Your task to perform on an android device: delete browsing data in the chrome app Image 0: 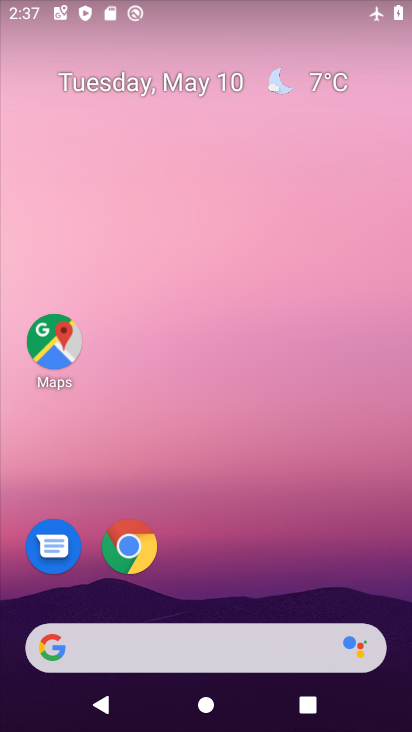
Step 0: drag from (330, 567) to (331, 101)
Your task to perform on an android device: delete browsing data in the chrome app Image 1: 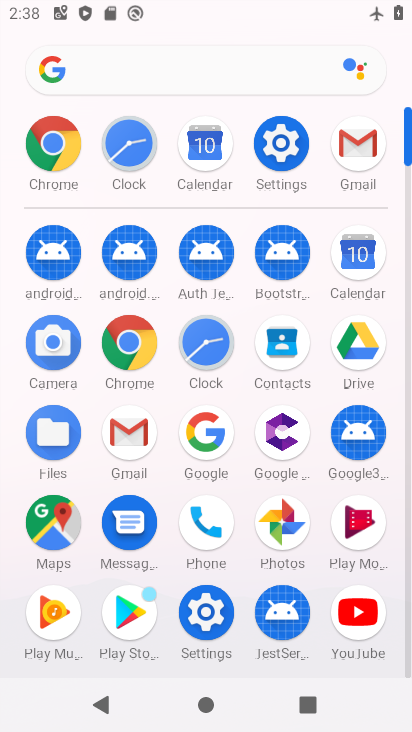
Step 1: click (143, 339)
Your task to perform on an android device: delete browsing data in the chrome app Image 2: 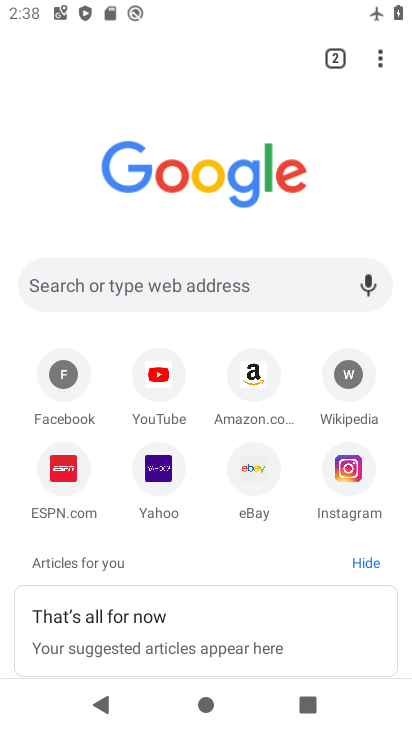
Step 2: task complete